Your task to perform on an android device: Open the web browser Image 0: 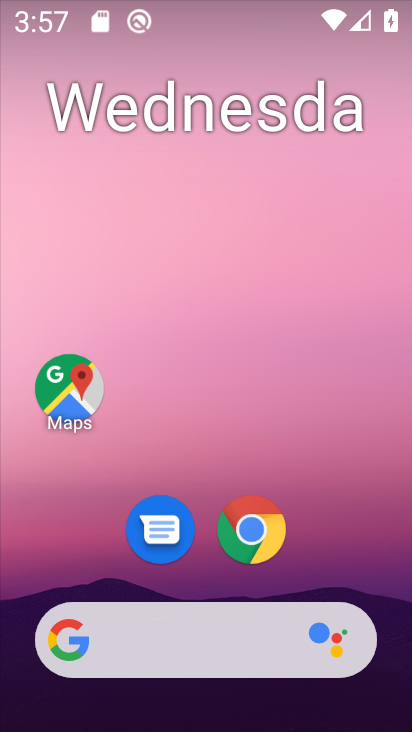
Step 0: click (244, 534)
Your task to perform on an android device: Open the web browser Image 1: 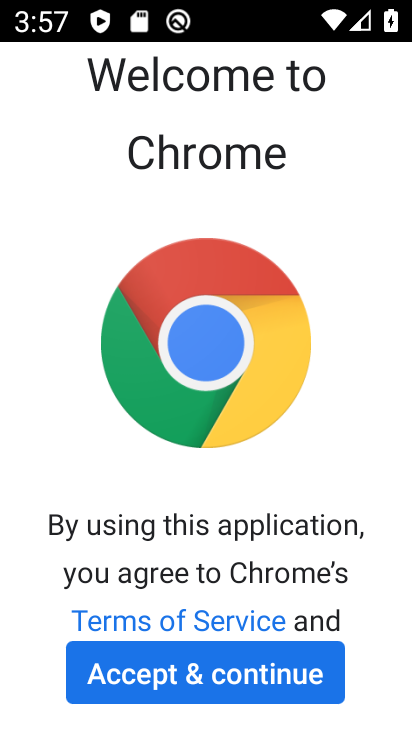
Step 1: click (242, 687)
Your task to perform on an android device: Open the web browser Image 2: 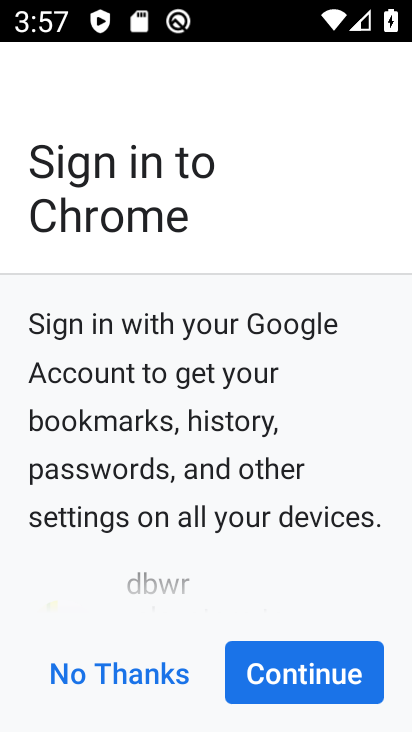
Step 2: click (299, 671)
Your task to perform on an android device: Open the web browser Image 3: 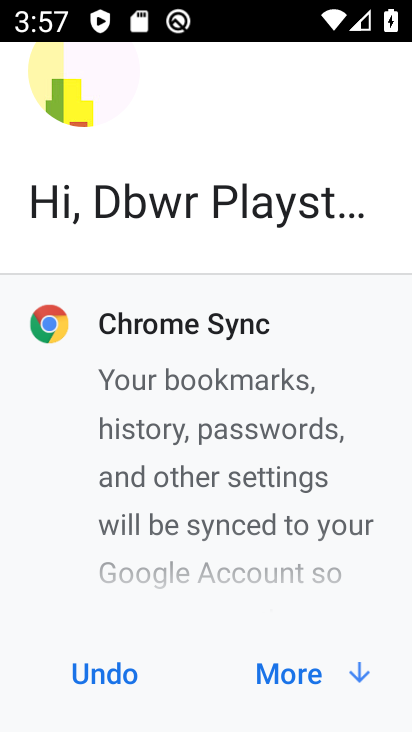
Step 3: click (295, 669)
Your task to perform on an android device: Open the web browser Image 4: 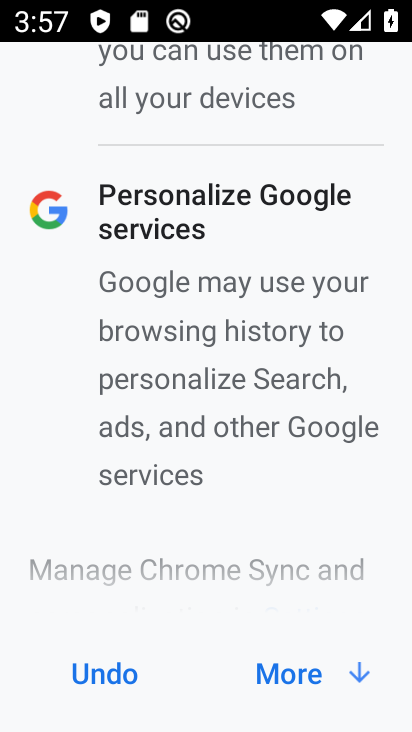
Step 4: click (294, 668)
Your task to perform on an android device: Open the web browser Image 5: 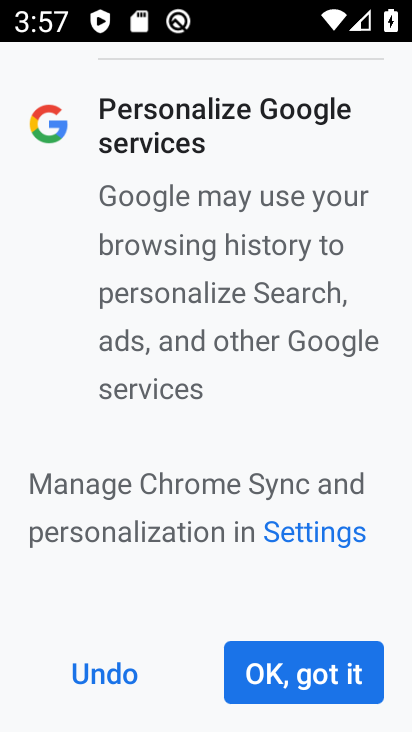
Step 5: click (294, 668)
Your task to perform on an android device: Open the web browser Image 6: 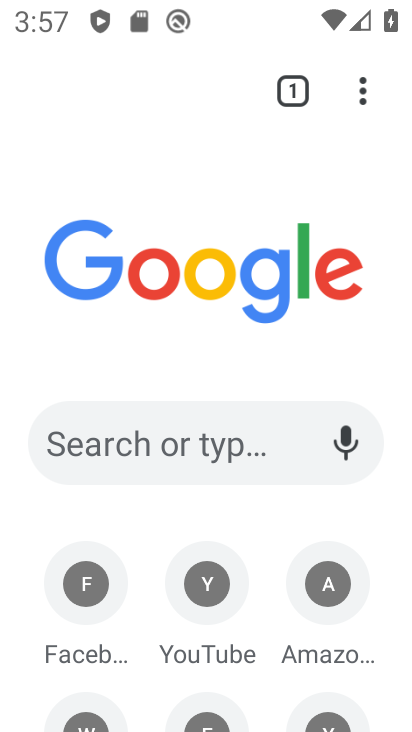
Step 6: task complete